Your task to perform on an android device: turn on data saver in the chrome app Image 0: 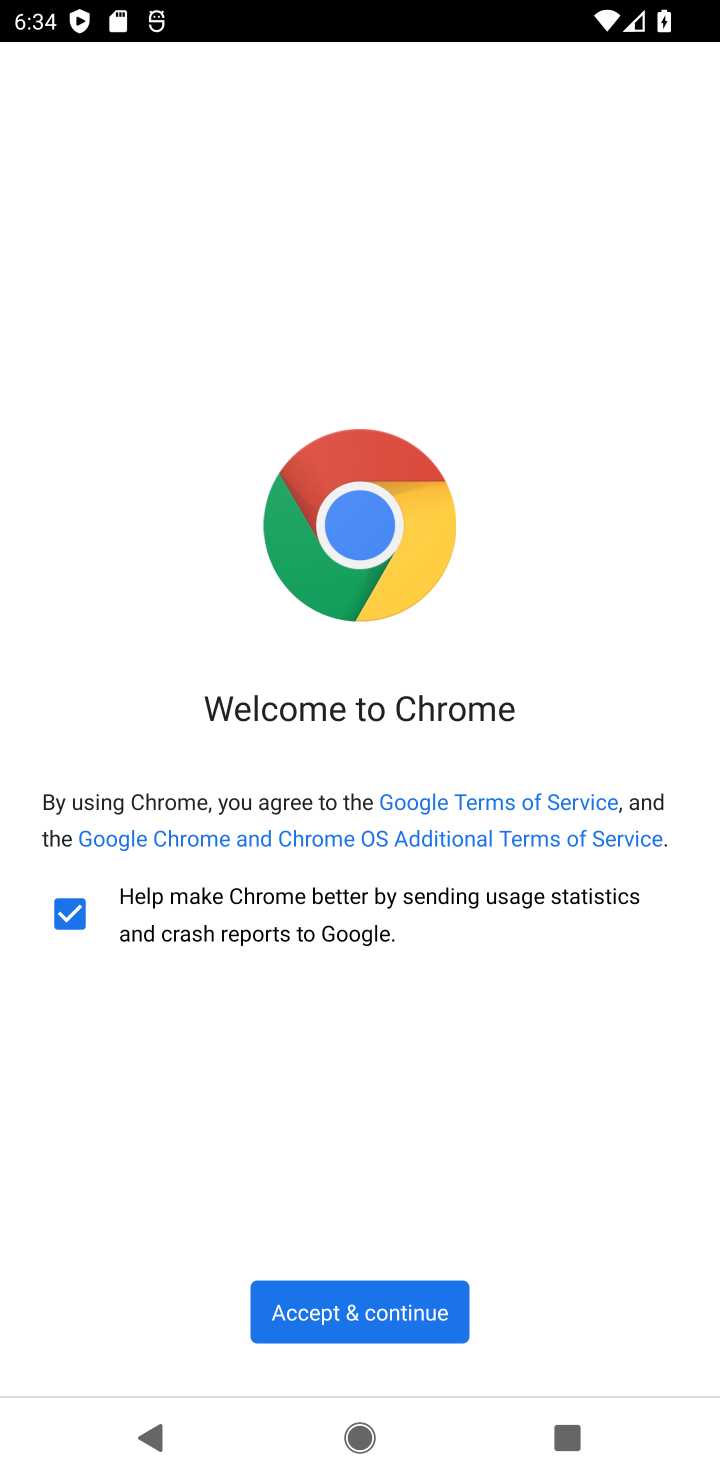
Step 0: click (428, 1303)
Your task to perform on an android device: turn on data saver in the chrome app Image 1: 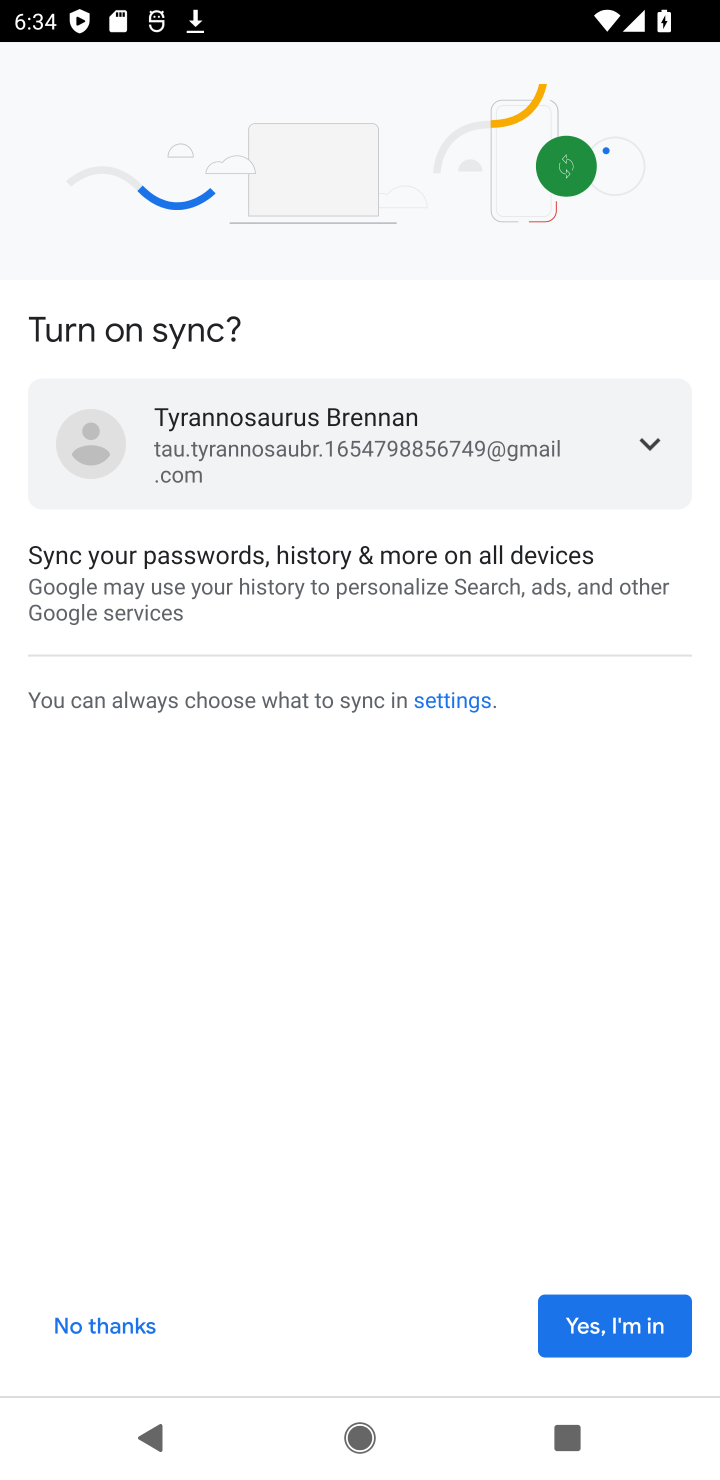
Step 1: click (646, 1309)
Your task to perform on an android device: turn on data saver in the chrome app Image 2: 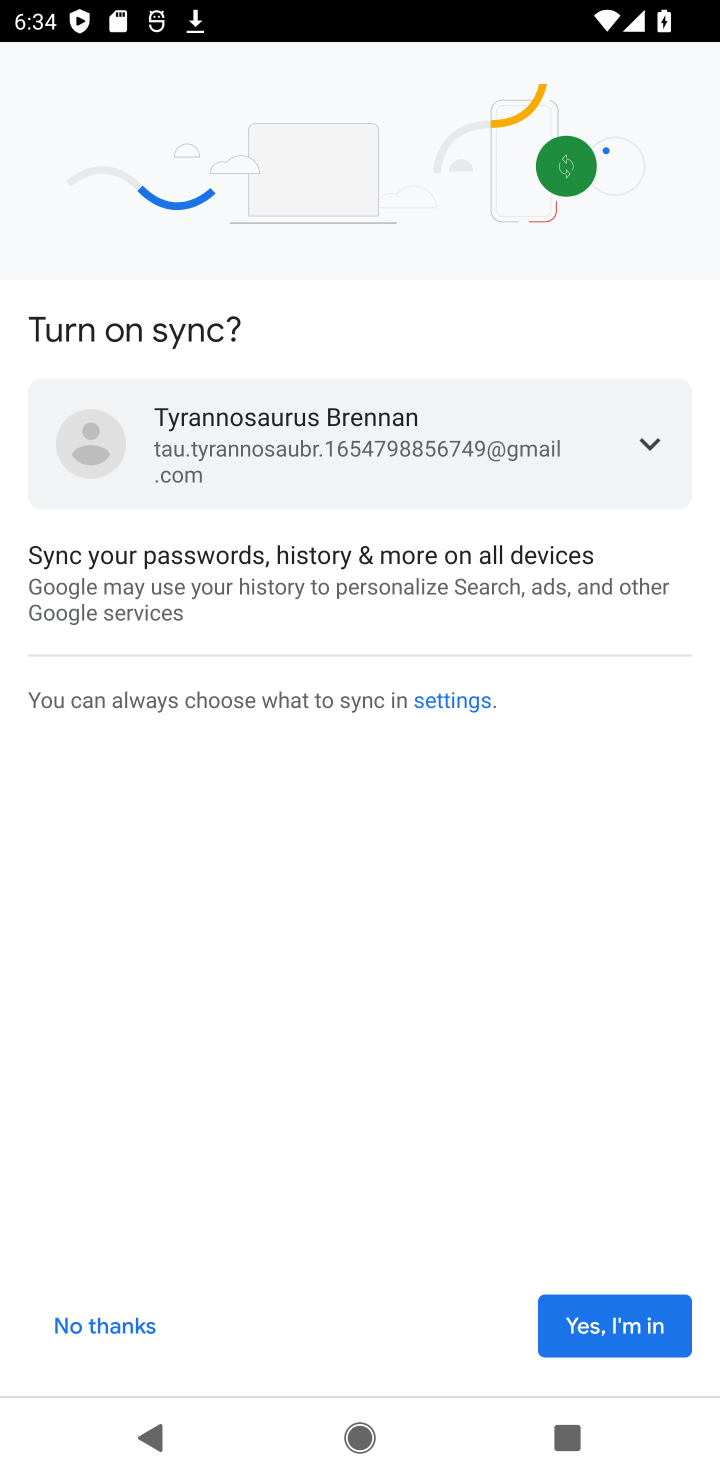
Step 2: click (644, 1296)
Your task to perform on an android device: turn on data saver in the chrome app Image 3: 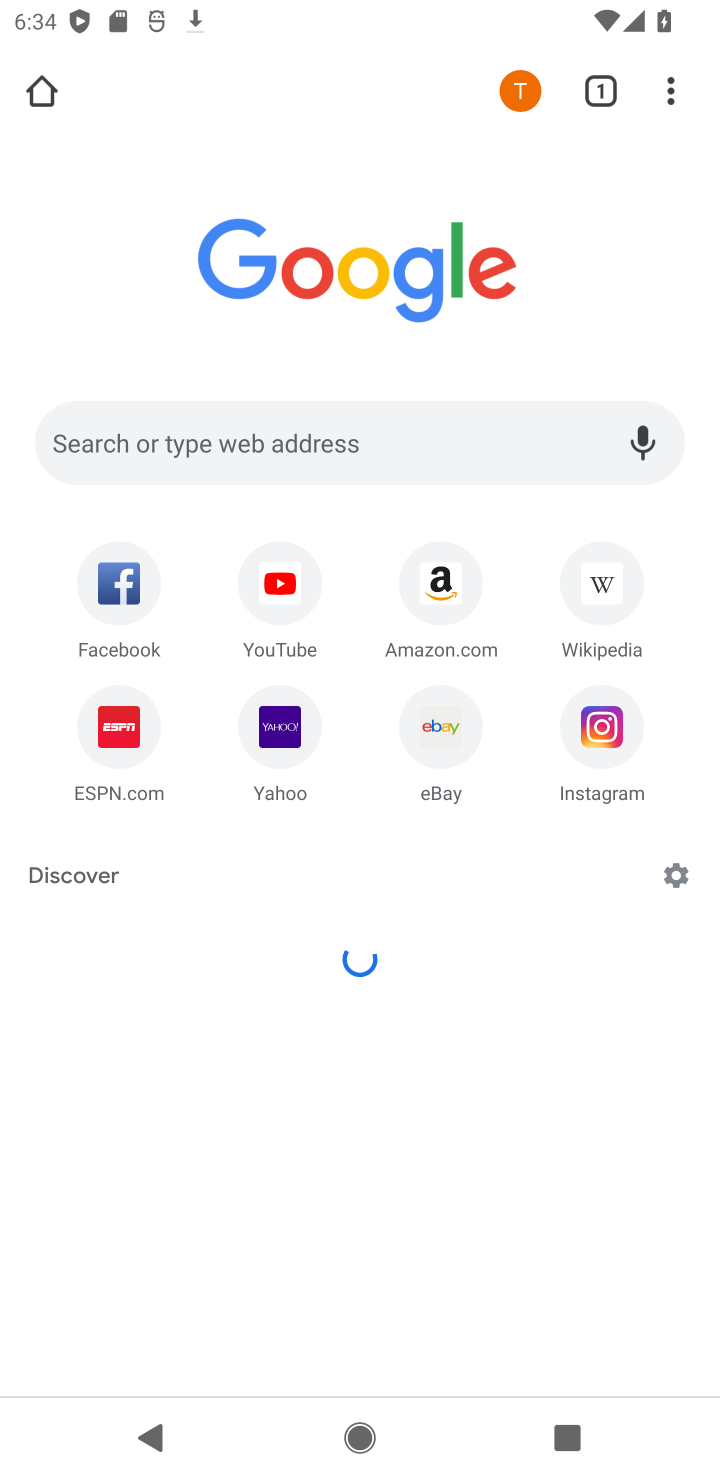
Step 3: click (685, 77)
Your task to perform on an android device: turn on data saver in the chrome app Image 4: 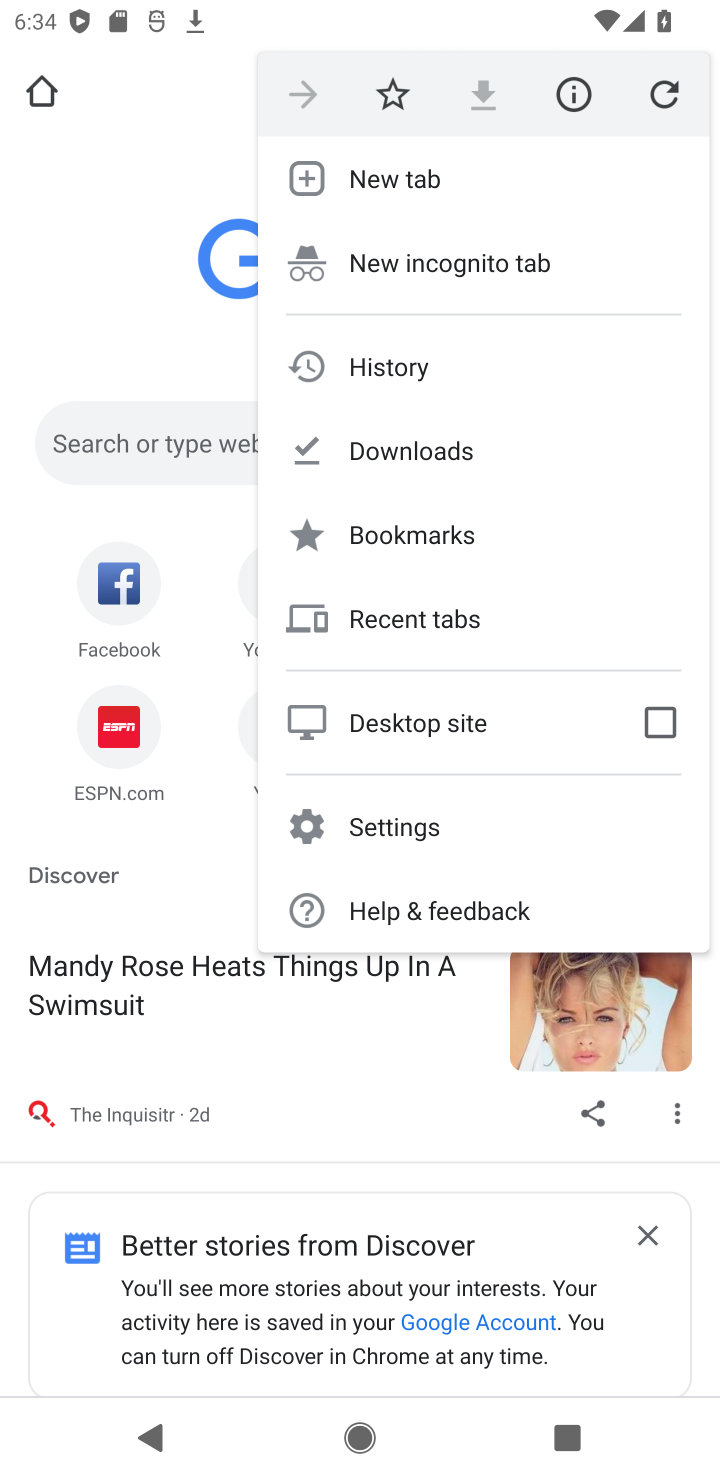
Step 4: click (485, 813)
Your task to perform on an android device: turn on data saver in the chrome app Image 5: 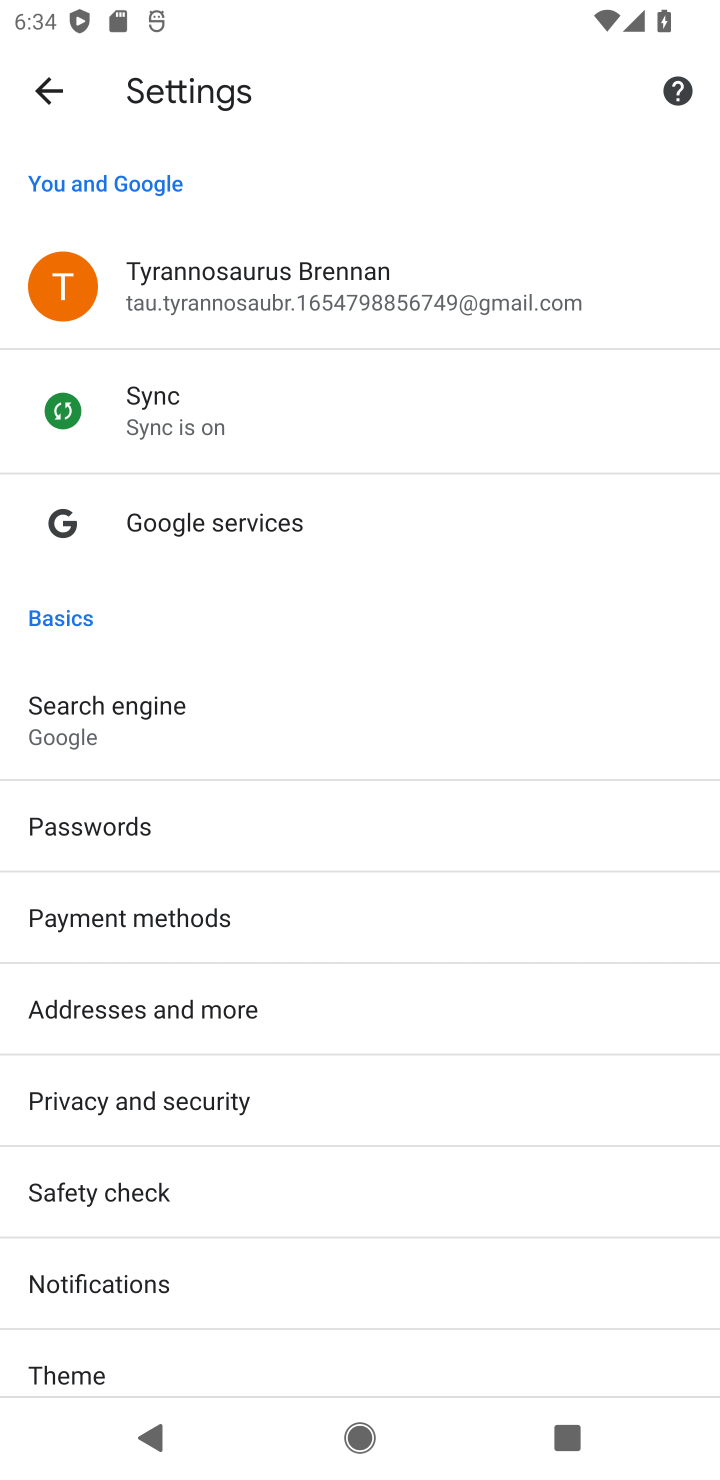
Step 5: drag from (563, 1166) to (440, 537)
Your task to perform on an android device: turn on data saver in the chrome app Image 6: 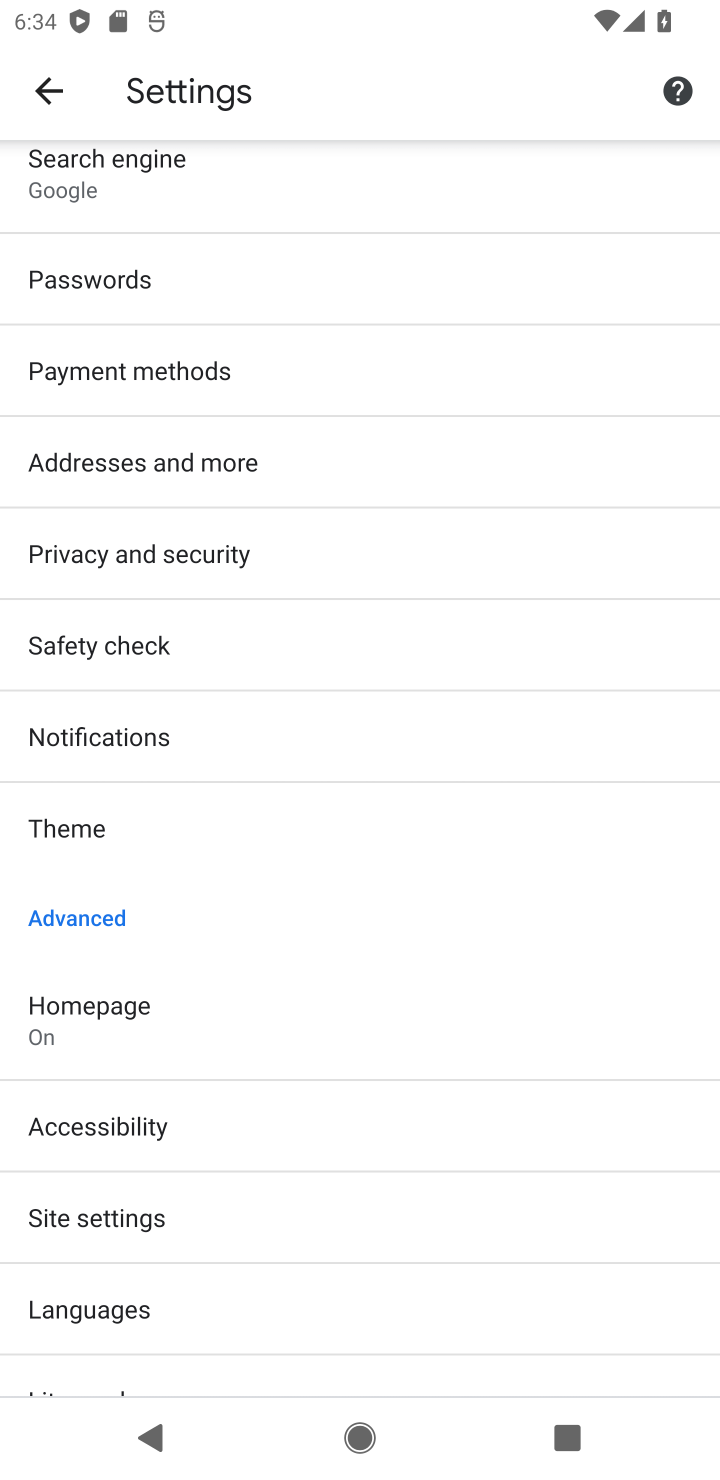
Step 6: drag from (507, 1209) to (417, 772)
Your task to perform on an android device: turn on data saver in the chrome app Image 7: 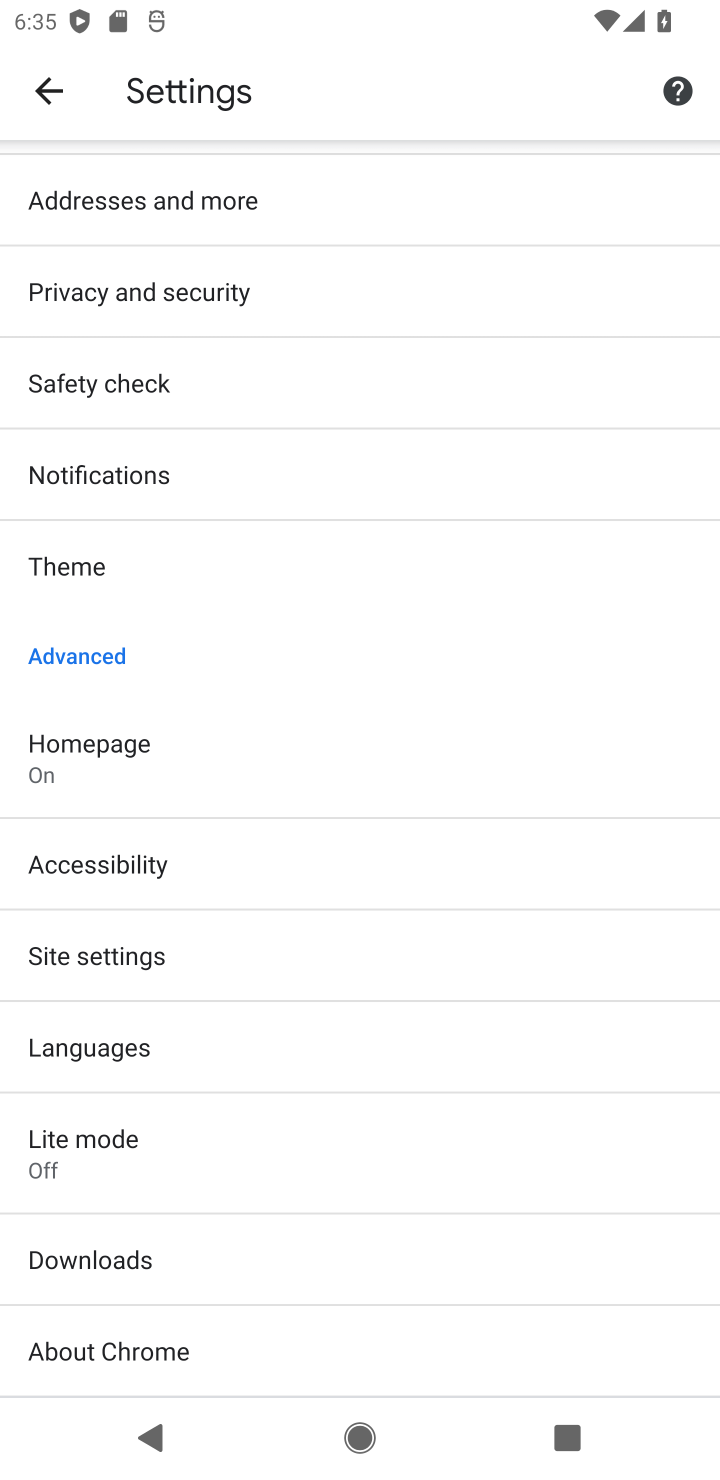
Step 7: click (86, 1175)
Your task to perform on an android device: turn on data saver in the chrome app Image 8: 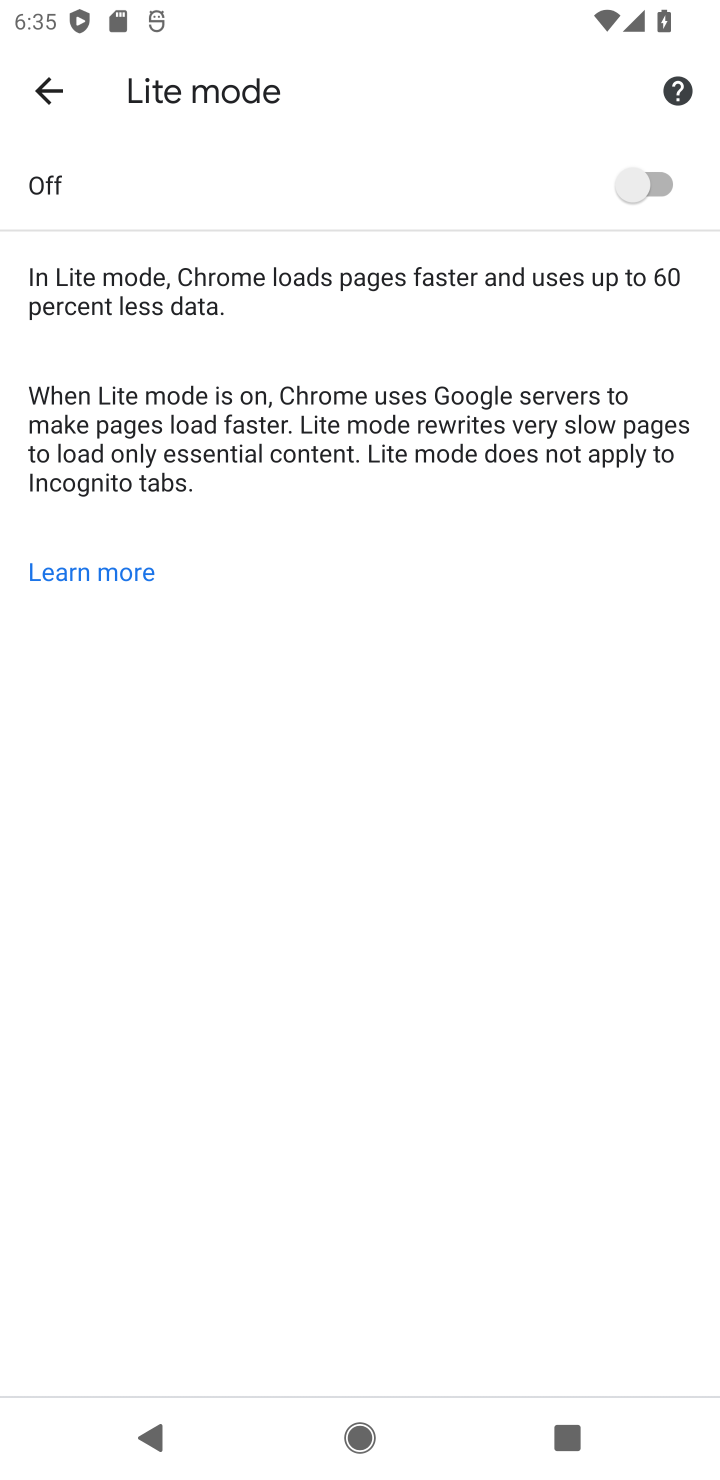
Step 8: click (641, 184)
Your task to perform on an android device: turn on data saver in the chrome app Image 9: 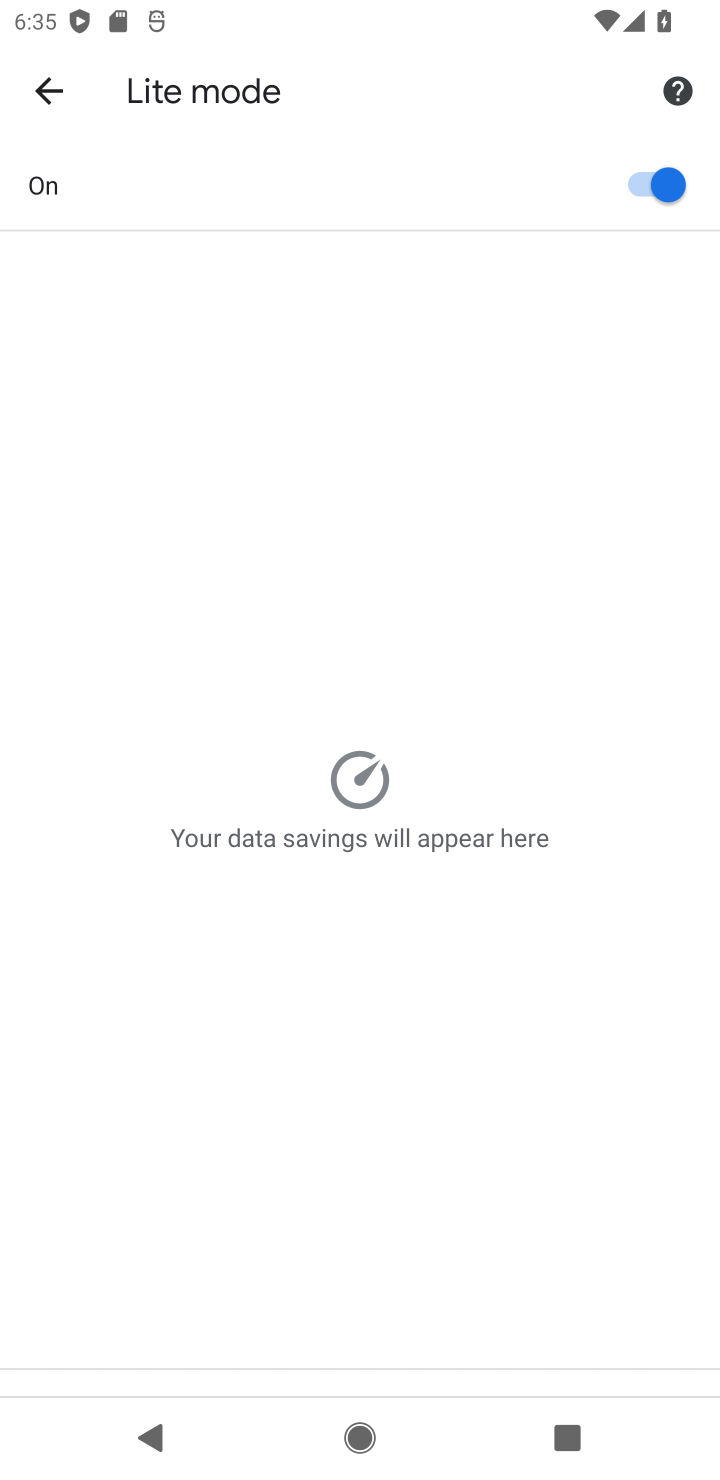
Step 9: task complete